Your task to perform on an android device: set default search engine in the chrome app Image 0: 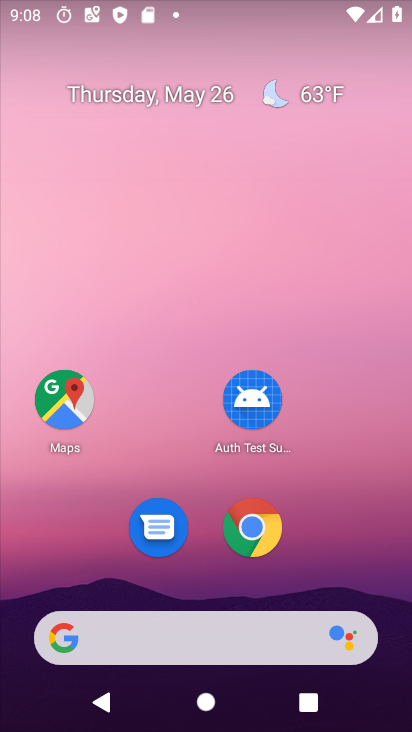
Step 0: drag from (352, 525) to (393, 107)
Your task to perform on an android device: set default search engine in the chrome app Image 1: 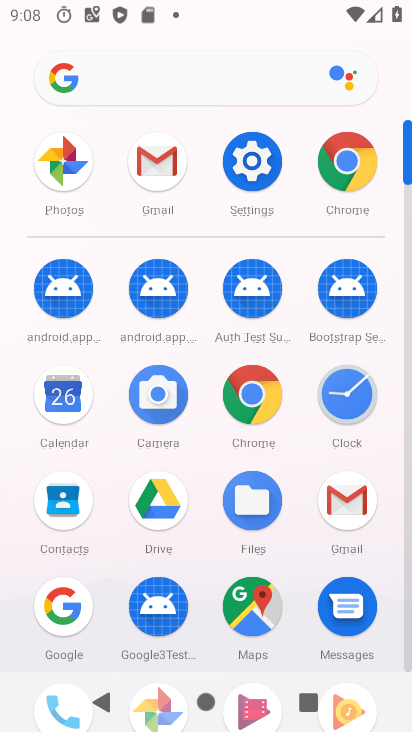
Step 1: click (323, 153)
Your task to perform on an android device: set default search engine in the chrome app Image 2: 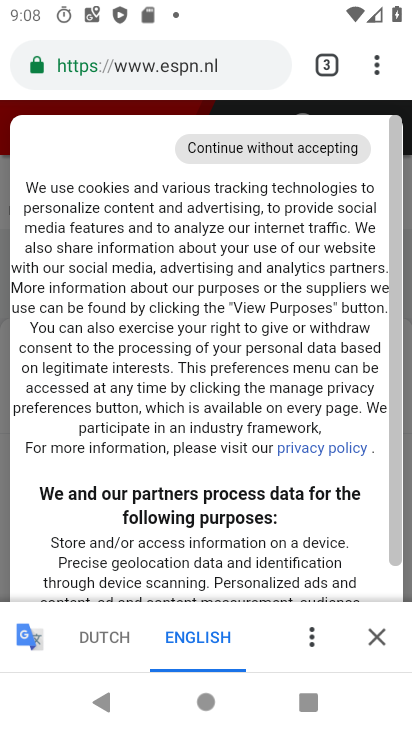
Step 2: drag from (378, 68) to (156, 567)
Your task to perform on an android device: set default search engine in the chrome app Image 3: 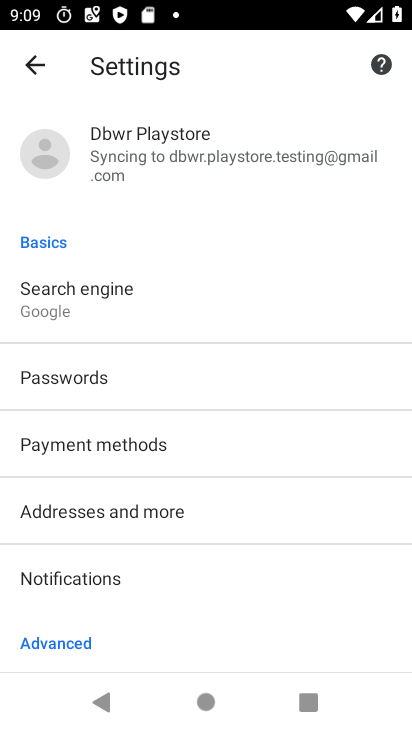
Step 3: click (73, 300)
Your task to perform on an android device: set default search engine in the chrome app Image 4: 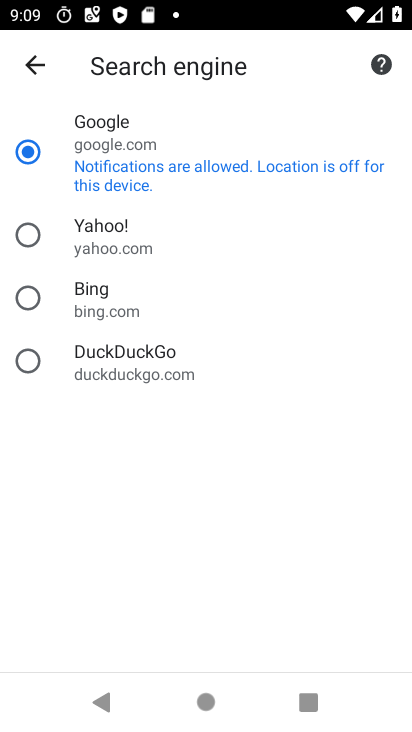
Step 4: task complete